Your task to perform on an android device: turn on notifications settings in the gmail app Image 0: 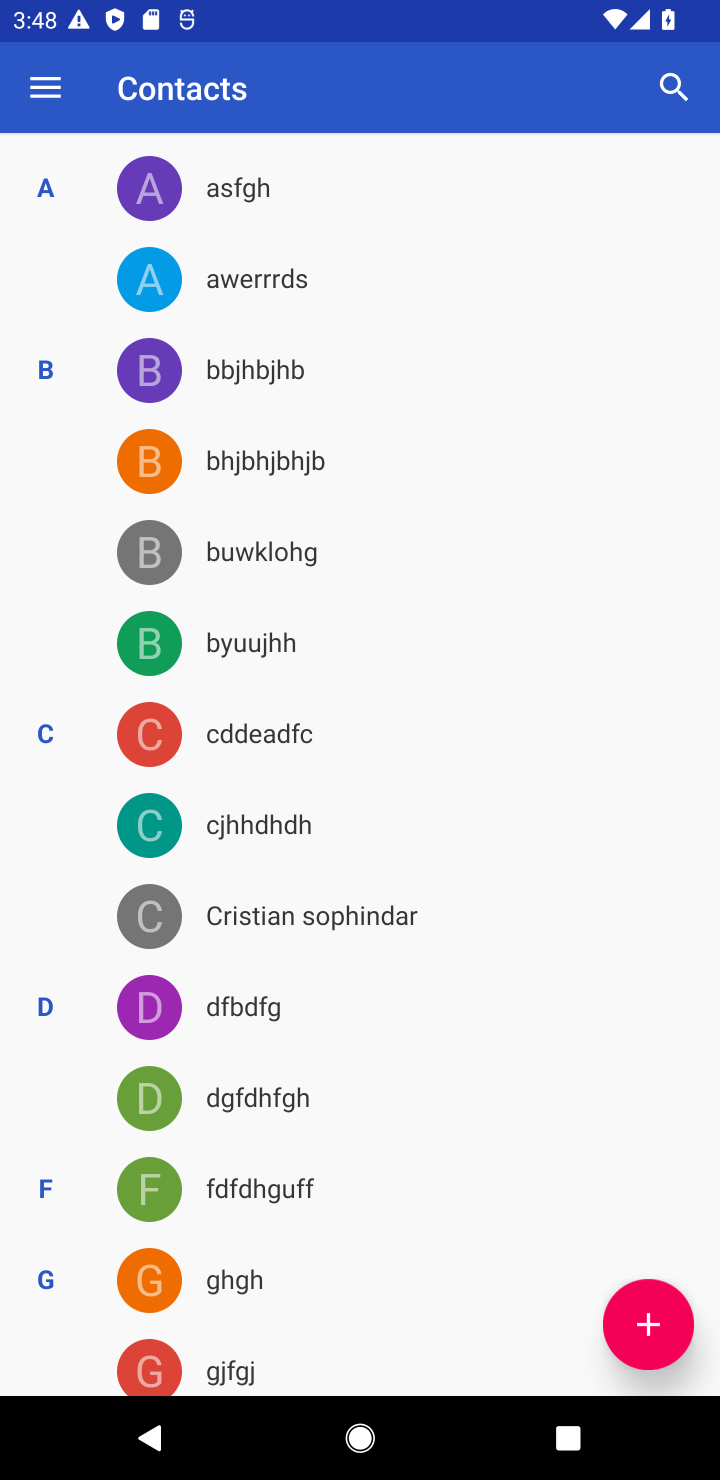
Step 0: press back button
Your task to perform on an android device: turn on notifications settings in the gmail app Image 1: 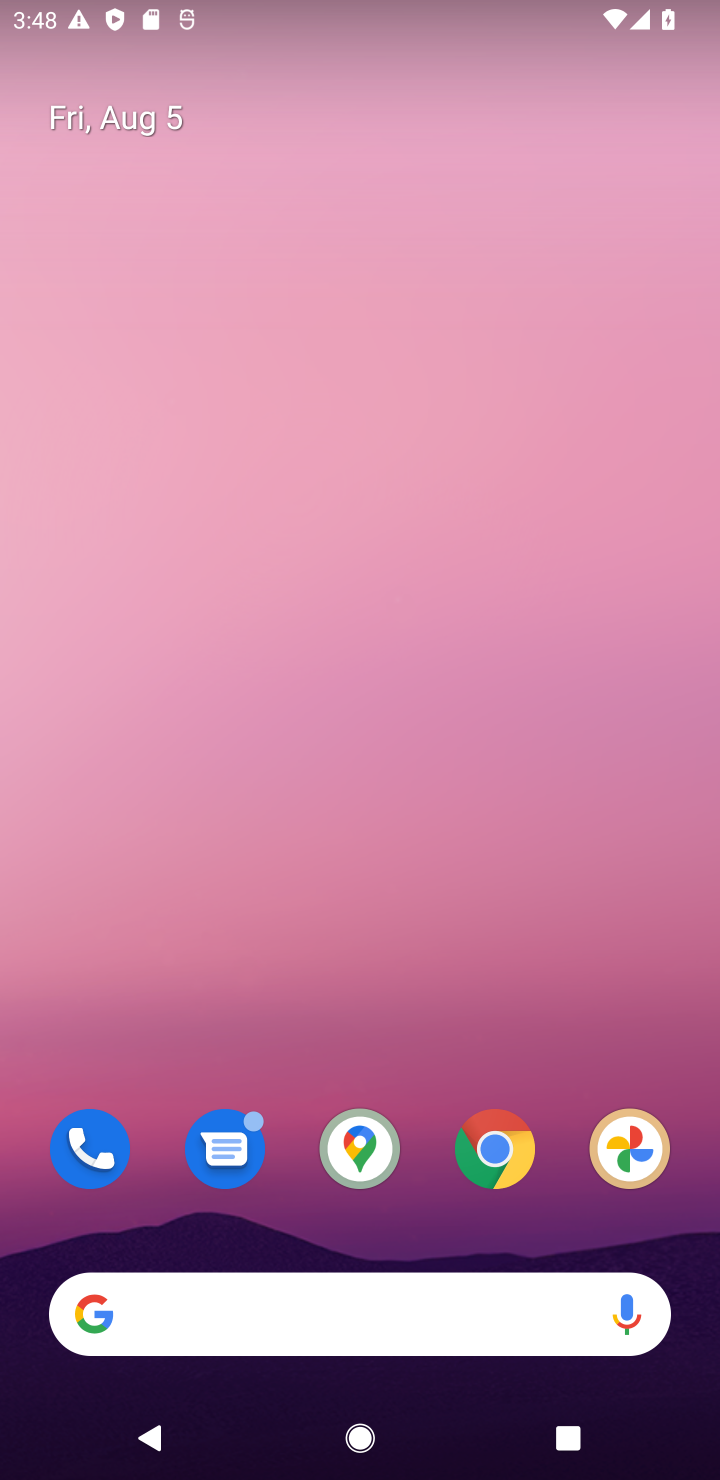
Step 1: drag from (163, 72) to (455, 66)
Your task to perform on an android device: turn on notifications settings in the gmail app Image 2: 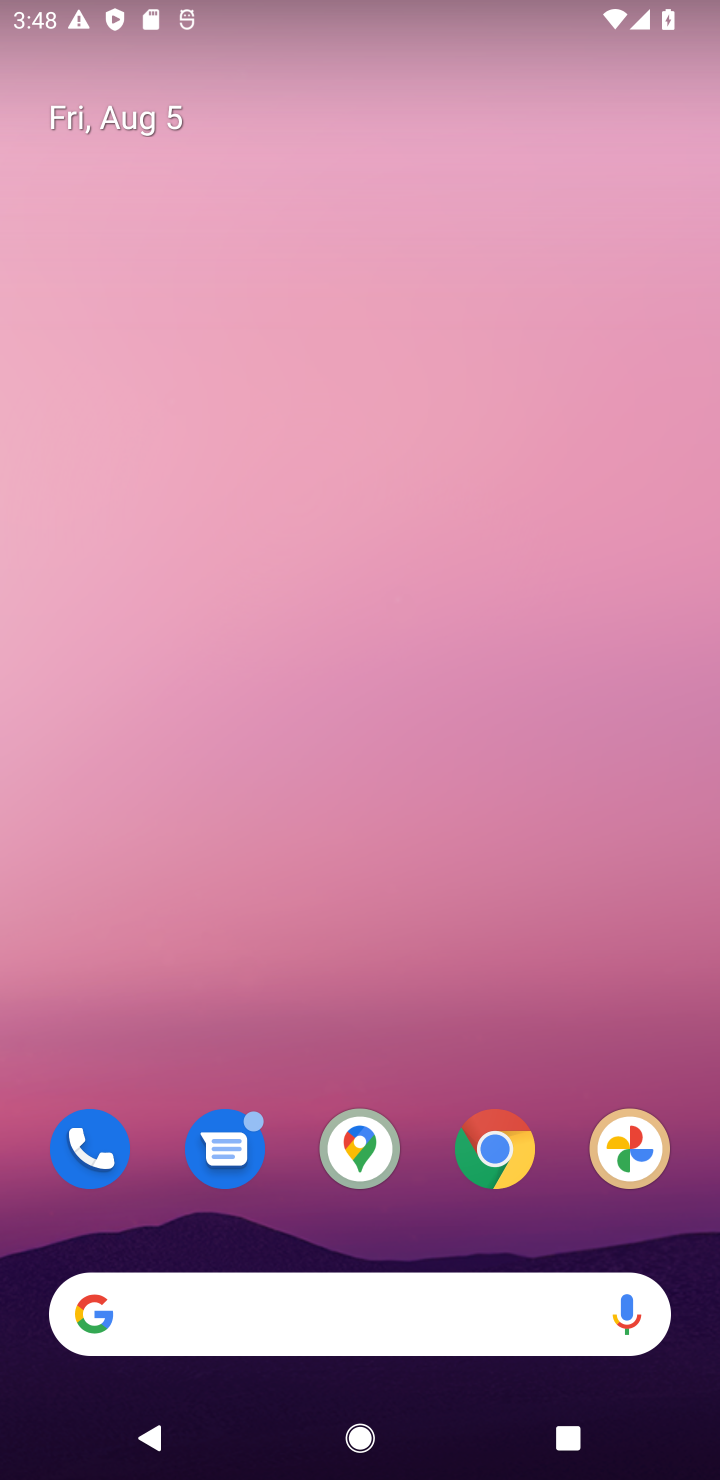
Step 2: drag from (448, 816) to (496, 8)
Your task to perform on an android device: turn on notifications settings in the gmail app Image 3: 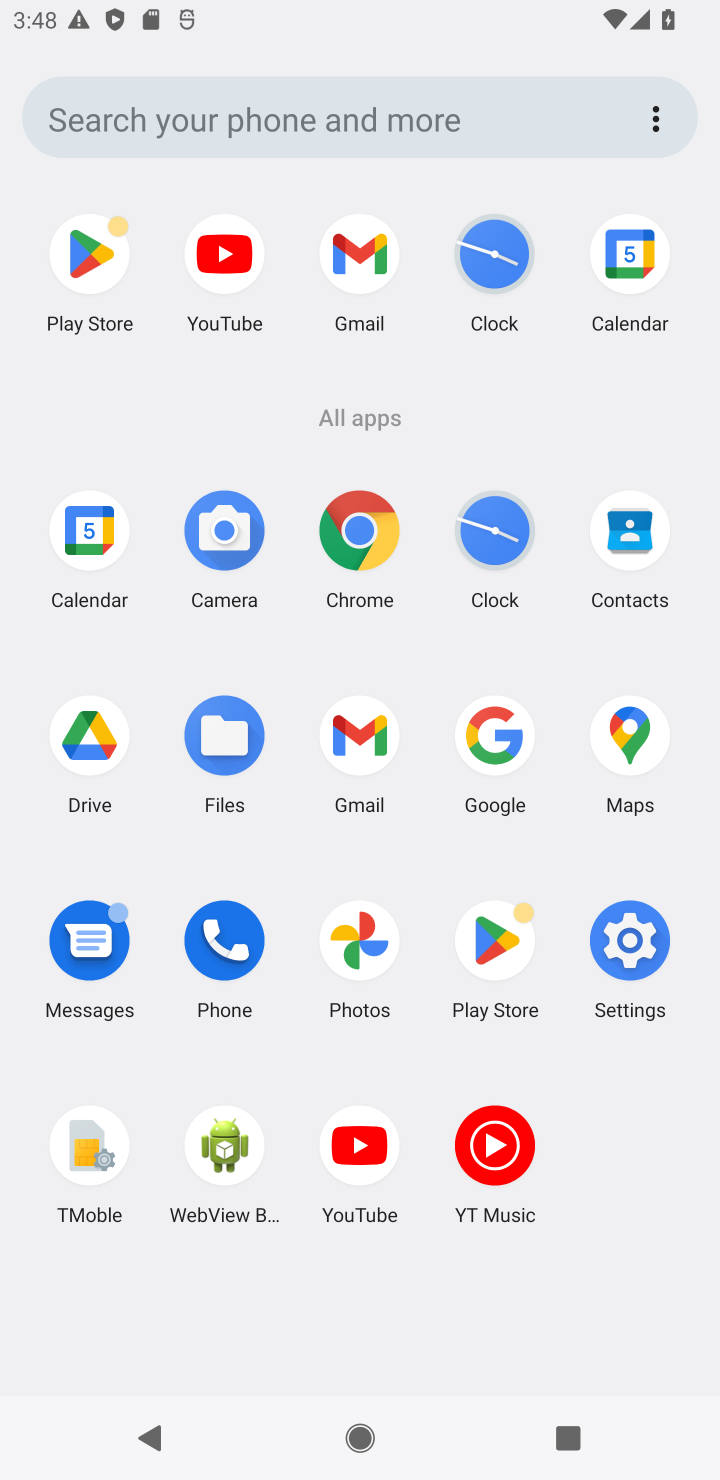
Step 3: click (358, 245)
Your task to perform on an android device: turn on notifications settings in the gmail app Image 4: 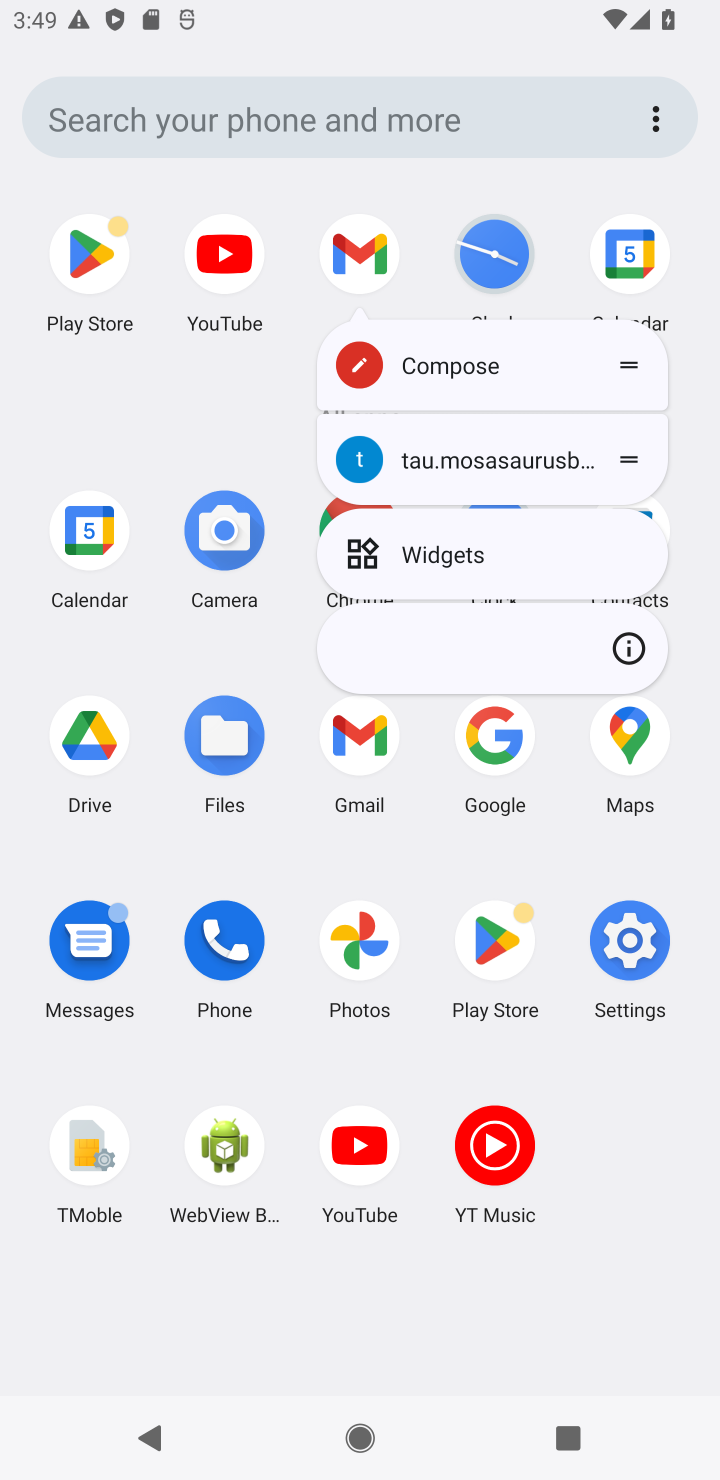
Step 4: click (634, 641)
Your task to perform on an android device: turn on notifications settings in the gmail app Image 5: 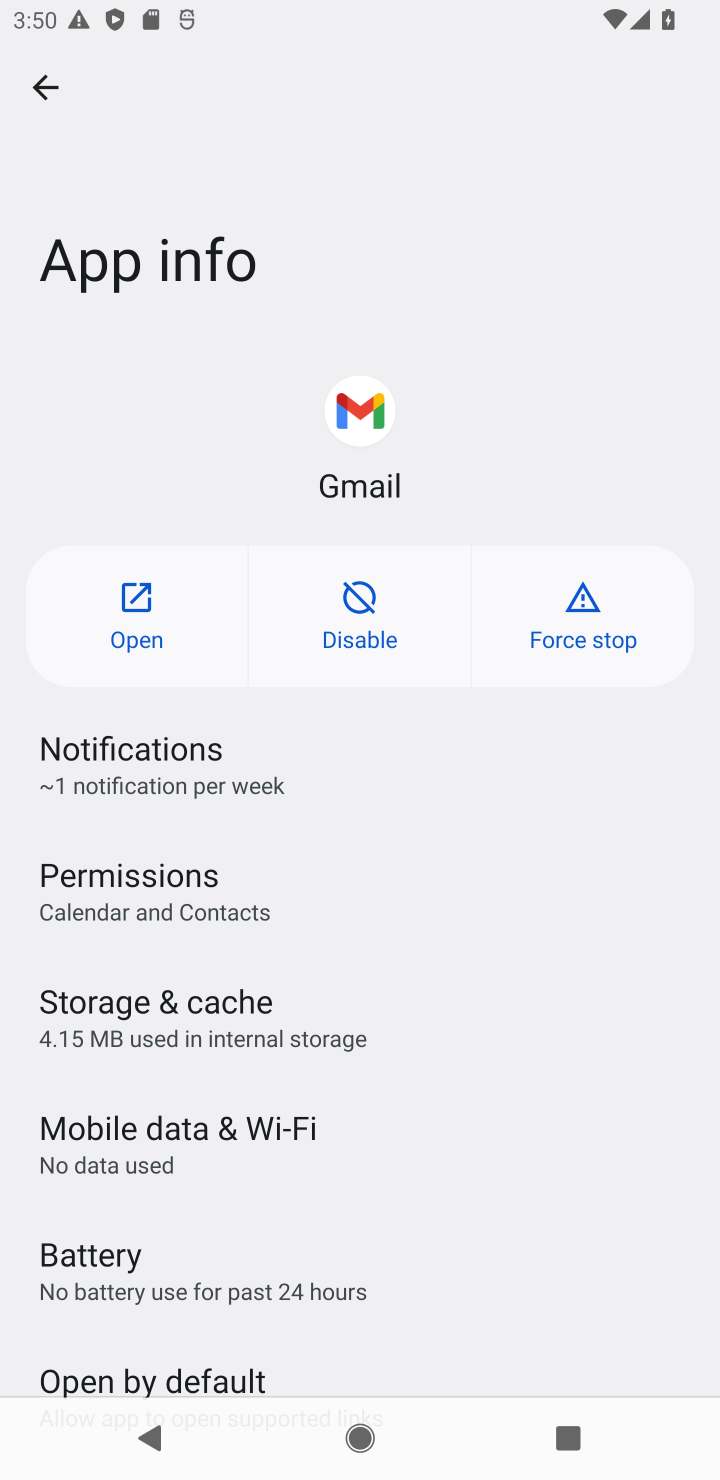
Step 5: click (169, 746)
Your task to perform on an android device: turn on notifications settings in the gmail app Image 6: 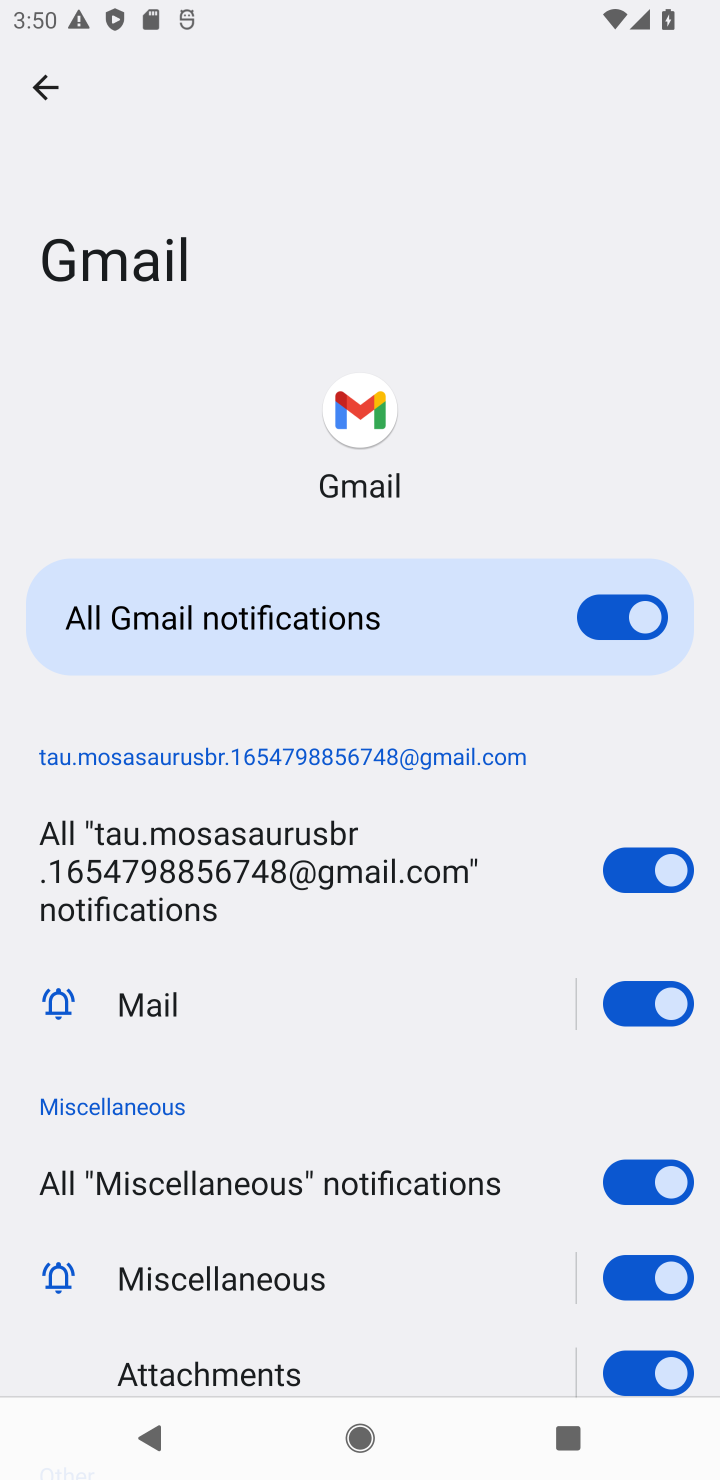
Step 6: task complete